Your task to perform on an android device: turn on improve location accuracy Image 0: 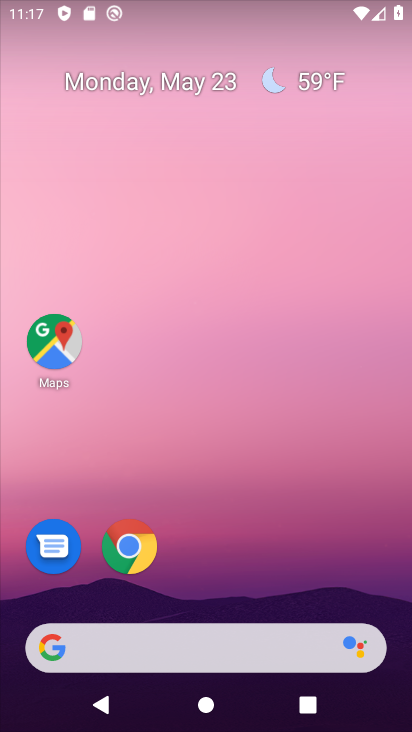
Step 0: drag from (235, 521) to (274, 376)
Your task to perform on an android device: turn on improve location accuracy Image 1: 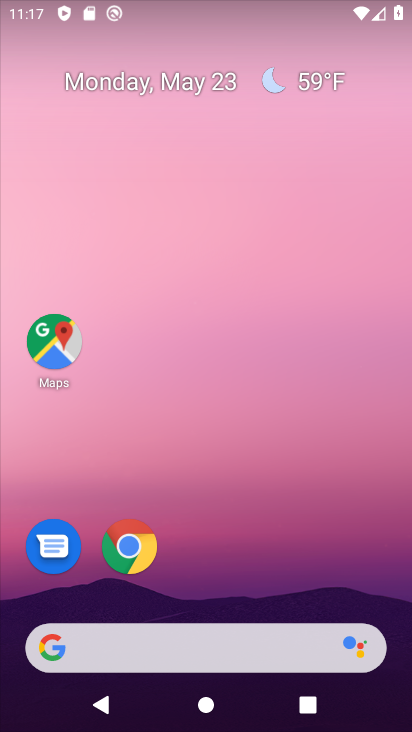
Step 1: drag from (208, 596) to (270, 188)
Your task to perform on an android device: turn on improve location accuracy Image 2: 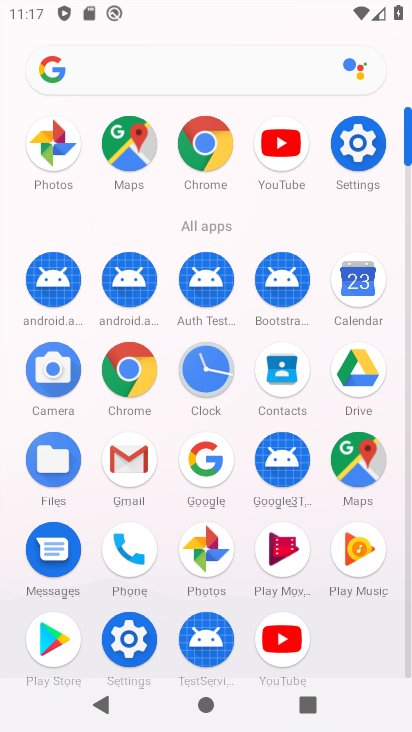
Step 2: click (371, 157)
Your task to perform on an android device: turn on improve location accuracy Image 3: 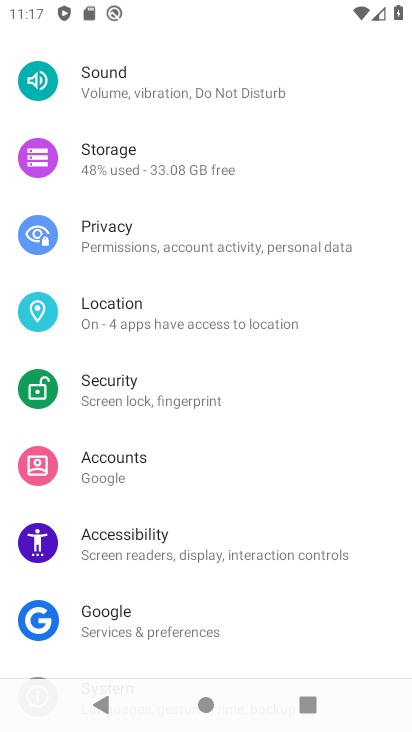
Step 3: click (148, 305)
Your task to perform on an android device: turn on improve location accuracy Image 4: 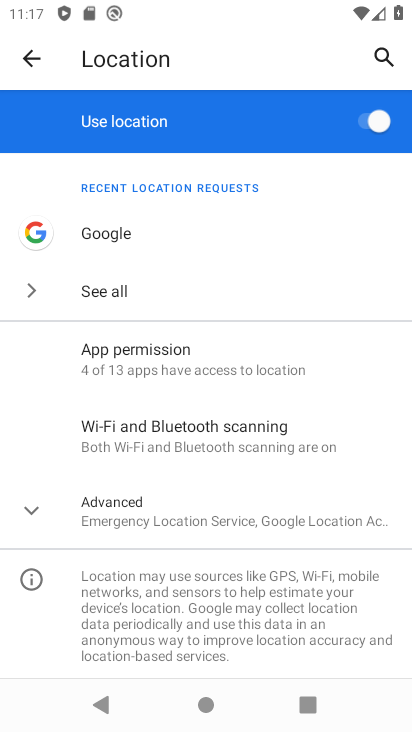
Step 4: click (79, 472)
Your task to perform on an android device: turn on improve location accuracy Image 5: 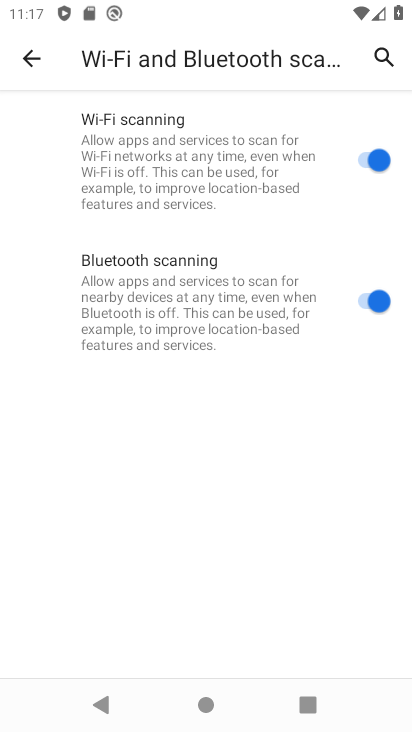
Step 5: click (32, 54)
Your task to perform on an android device: turn on improve location accuracy Image 6: 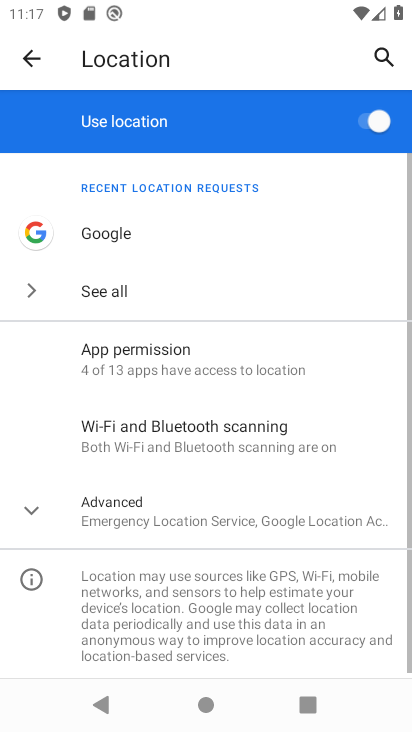
Step 6: click (162, 510)
Your task to perform on an android device: turn on improve location accuracy Image 7: 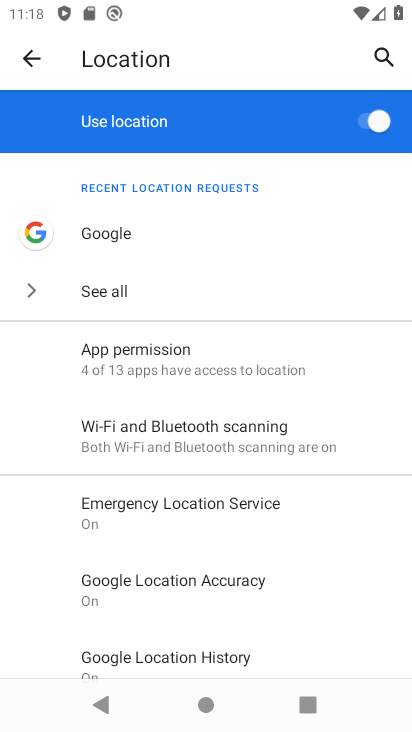
Step 7: drag from (224, 627) to (163, 45)
Your task to perform on an android device: turn on improve location accuracy Image 8: 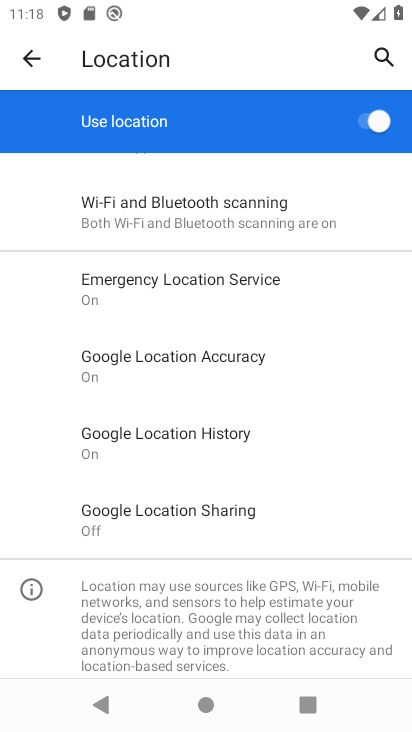
Step 8: click (218, 349)
Your task to perform on an android device: turn on improve location accuracy Image 9: 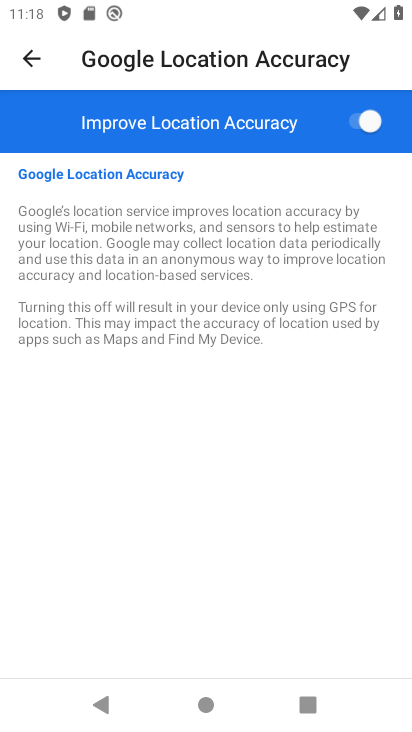
Step 9: task complete